Your task to perform on an android device: Open Google Image 0: 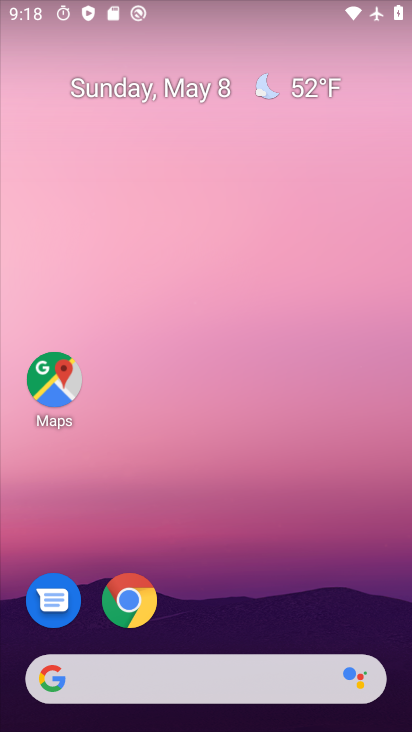
Step 0: drag from (236, 524) to (258, 137)
Your task to perform on an android device: Open Google Image 1: 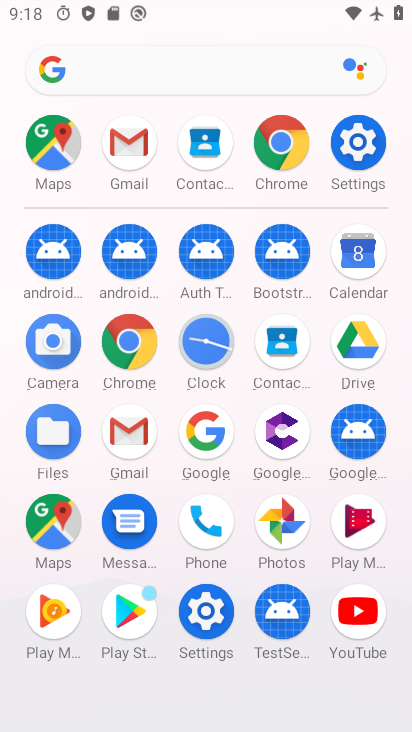
Step 1: click (203, 431)
Your task to perform on an android device: Open Google Image 2: 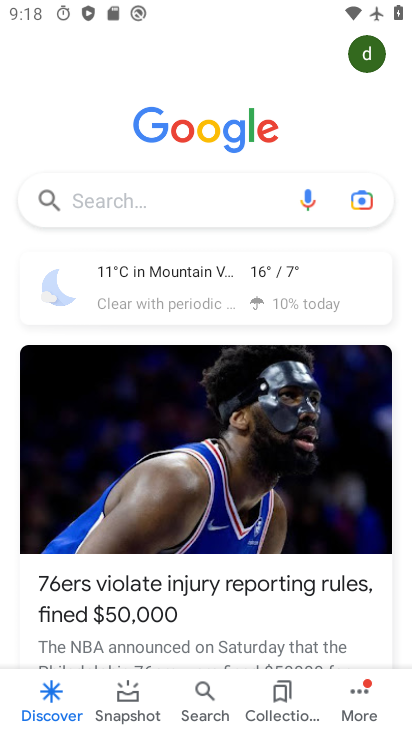
Step 2: task complete